Your task to perform on an android device: Open Youtube and go to "Your channel" Image 0: 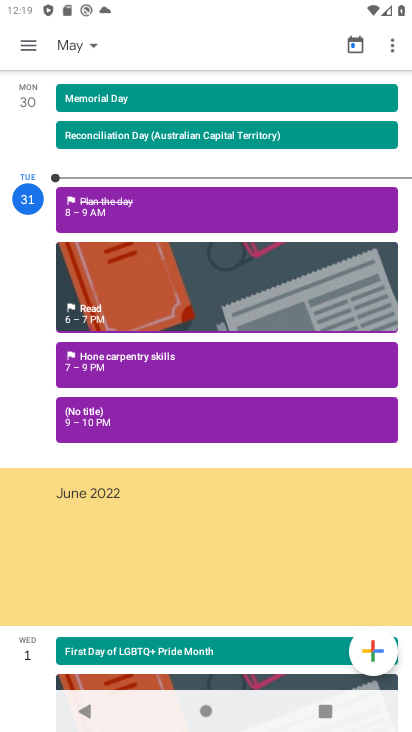
Step 0: press home button
Your task to perform on an android device: Open Youtube and go to "Your channel" Image 1: 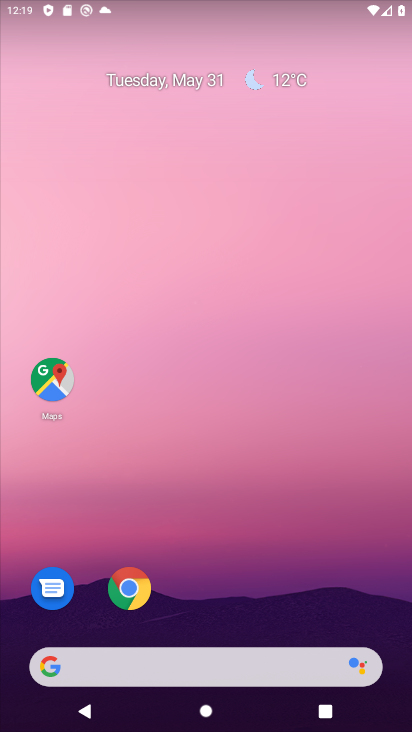
Step 1: drag from (388, 689) to (375, 144)
Your task to perform on an android device: Open Youtube and go to "Your channel" Image 2: 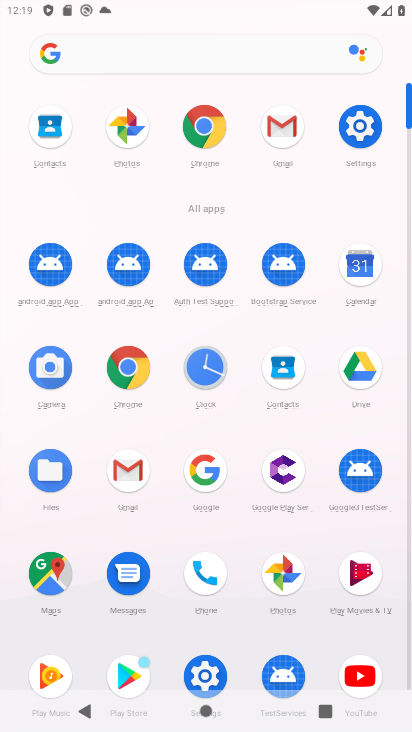
Step 2: drag from (245, 632) to (266, 351)
Your task to perform on an android device: Open Youtube and go to "Your channel" Image 3: 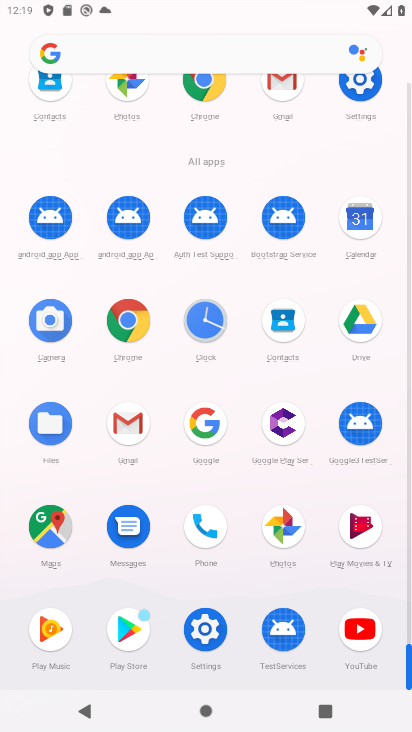
Step 3: click (350, 638)
Your task to perform on an android device: Open Youtube and go to "Your channel" Image 4: 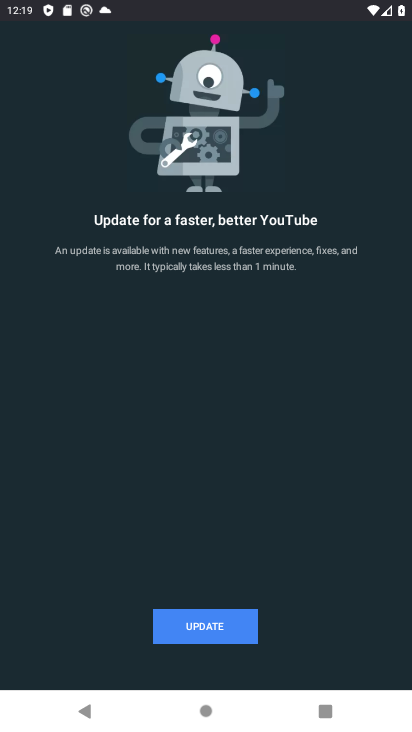
Step 4: click (205, 616)
Your task to perform on an android device: Open Youtube and go to "Your channel" Image 5: 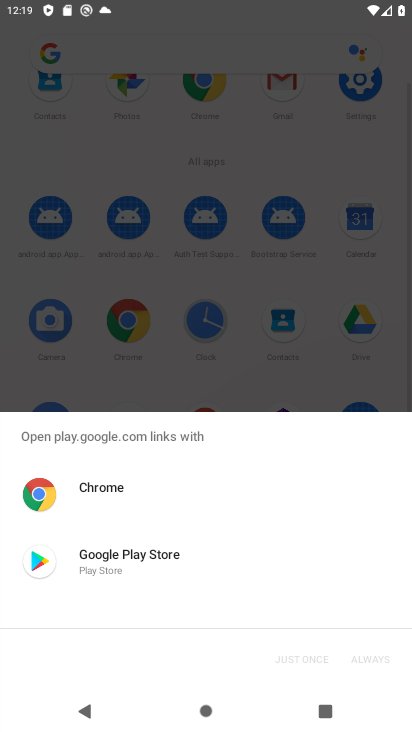
Step 5: click (96, 565)
Your task to perform on an android device: Open Youtube and go to "Your channel" Image 6: 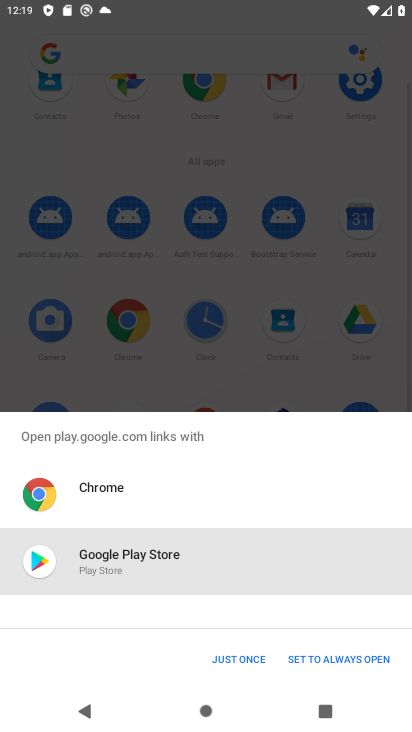
Step 6: click (228, 661)
Your task to perform on an android device: Open Youtube and go to "Your channel" Image 7: 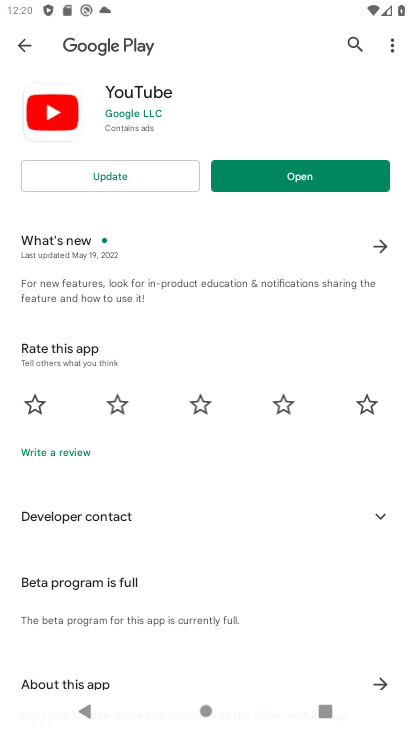
Step 7: click (117, 177)
Your task to perform on an android device: Open Youtube and go to "Your channel" Image 8: 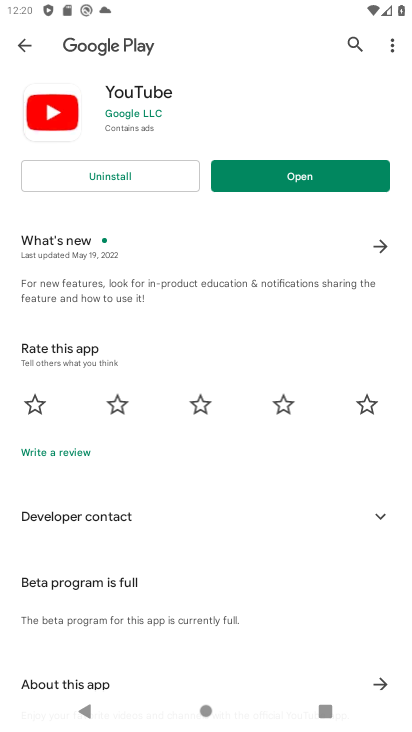
Step 8: click (249, 183)
Your task to perform on an android device: Open Youtube and go to "Your channel" Image 9: 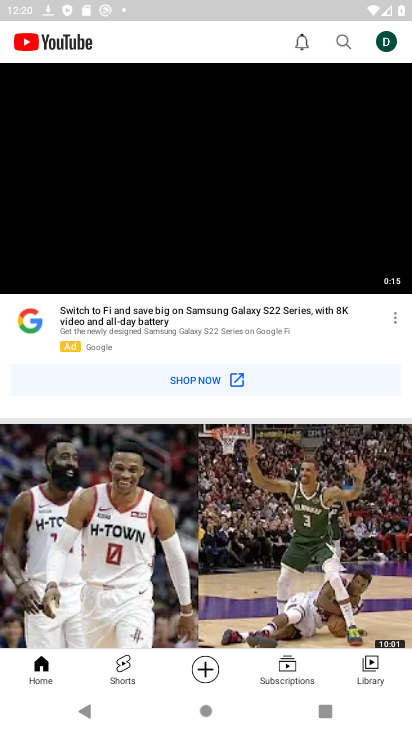
Step 9: click (379, 40)
Your task to perform on an android device: Open Youtube and go to "Your channel" Image 10: 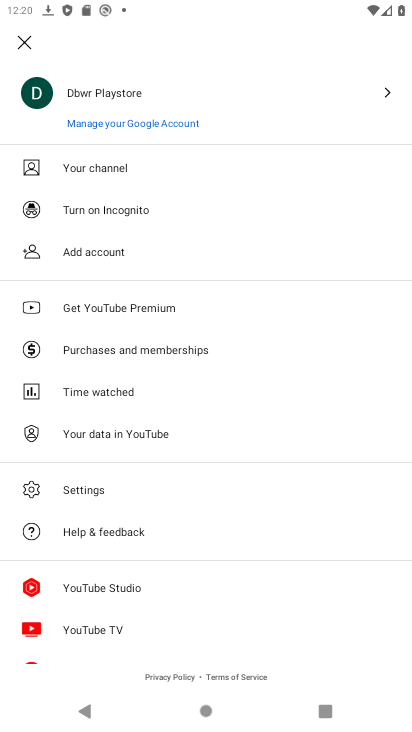
Step 10: click (95, 171)
Your task to perform on an android device: Open Youtube and go to "Your channel" Image 11: 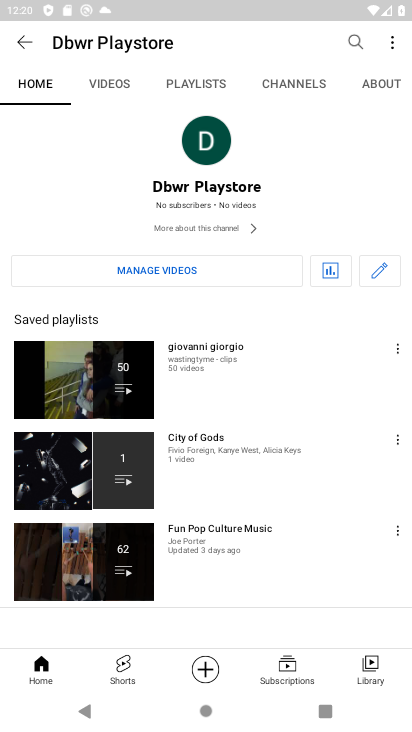
Step 11: task complete